Your task to perform on an android device: delete browsing data in the chrome app Image 0: 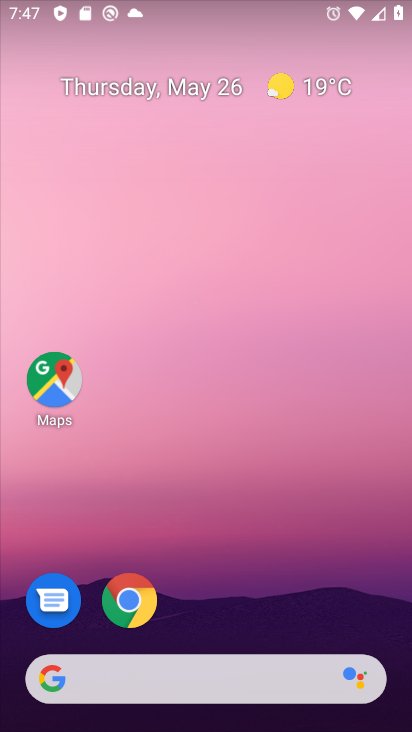
Step 0: press home button
Your task to perform on an android device: delete browsing data in the chrome app Image 1: 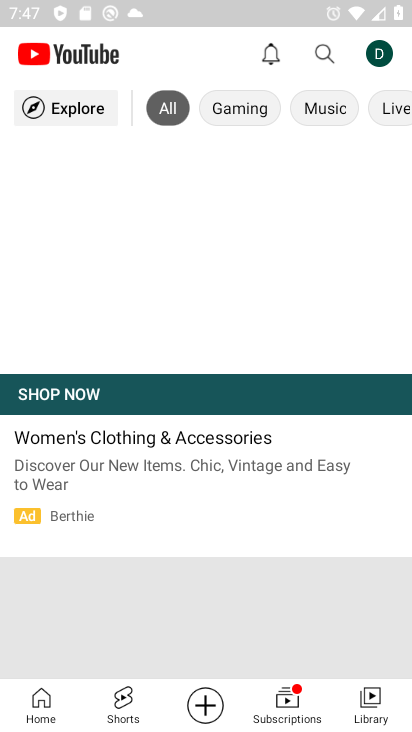
Step 1: click (53, 682)
Your task to perform on an android device: delete browsing data in the chrome app Image 2: 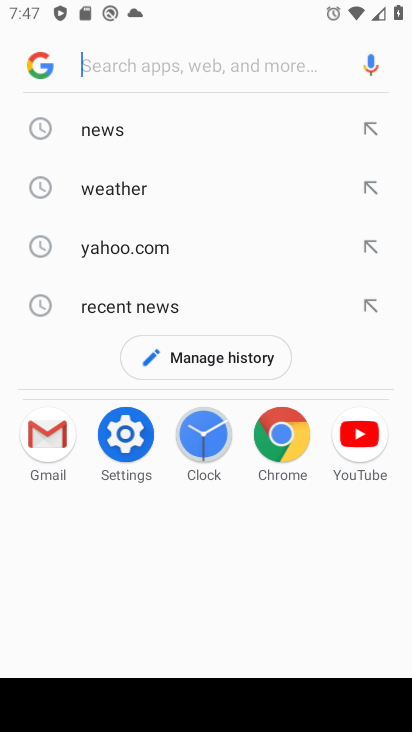
Step 2: press home button
Your task to perform on an android device: delete browsing data in the chrome app Image 3: 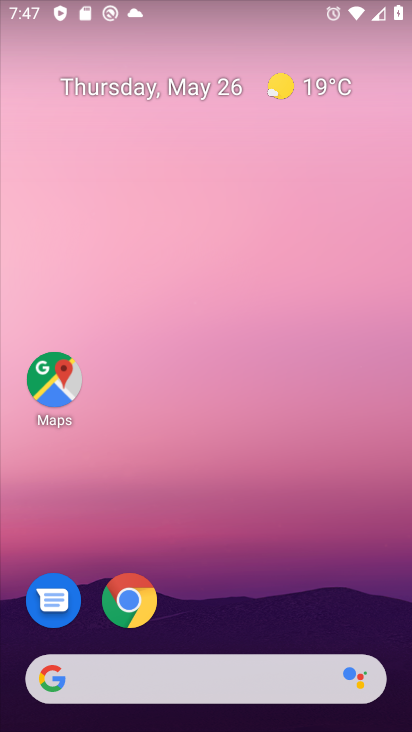
Step 3: click (133, 603)
Your task to perform on an android device: delete browsing data in the chrome app Image 4: 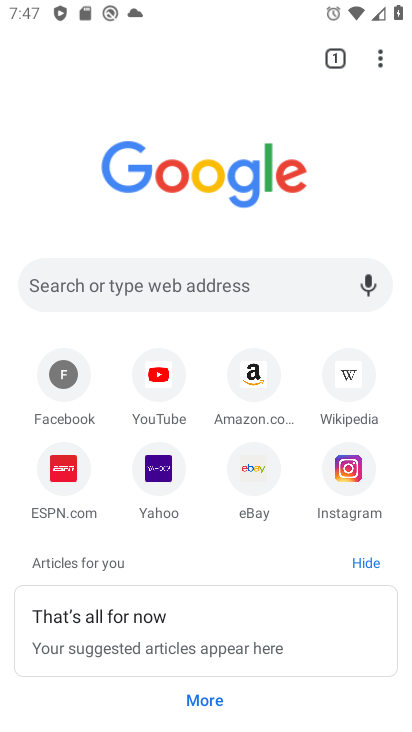
Step 4: task complete